Your task to perform on an android device: Go to sound settings Image 0: 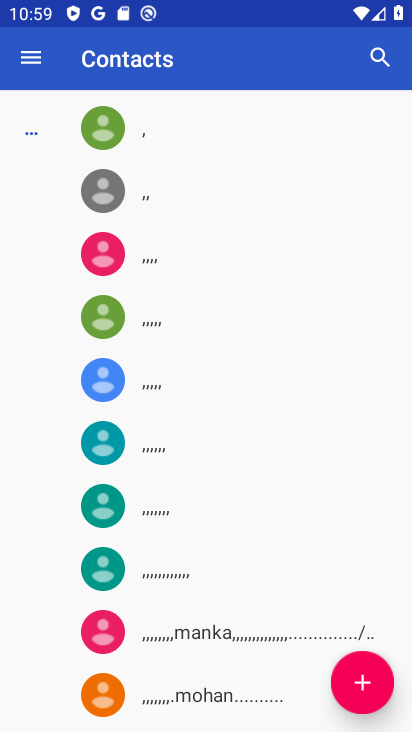
Step 0: press home button
Your task to perform on an android device: Go to sound settings Image 1: 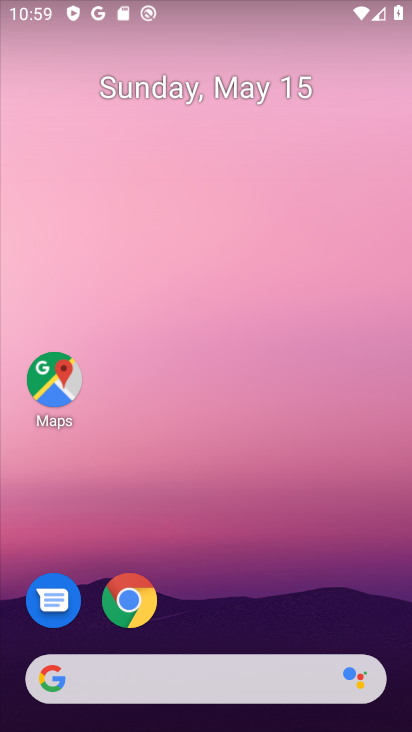
Step 1: drag from (183, 663) to (205, 193)
Your task to perform on an android device: Go to sound settings Image 2: 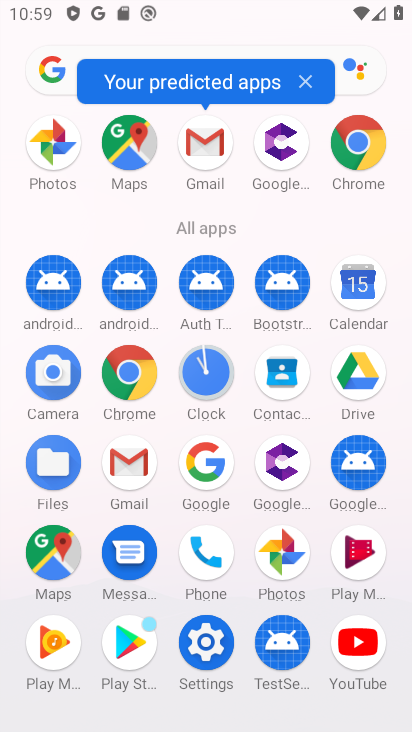
Step 2: click (199, 632)
Your task to perform on an android device: Go to sound settings Image 3: 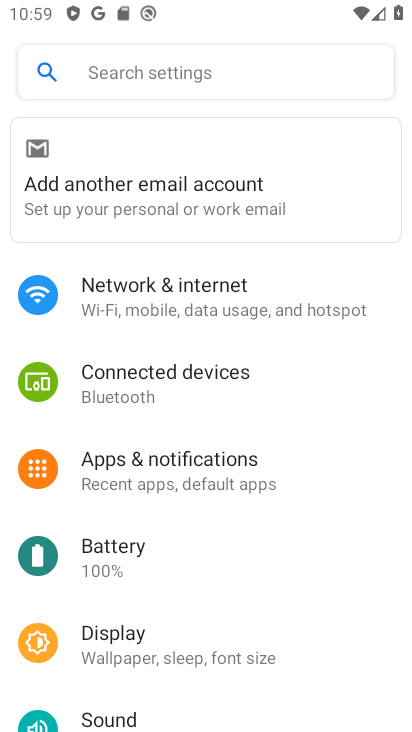
Step 3: drag from (182, 650) to (179, 121)
Your task to perform on an android device: Go to sound settings Image 4: 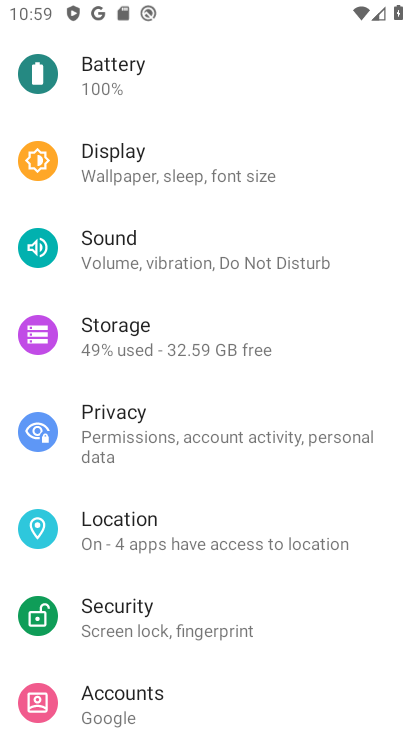
Step 4: click (119, 271)
Your task to perform on an android device: Go to sound settings Image 5: 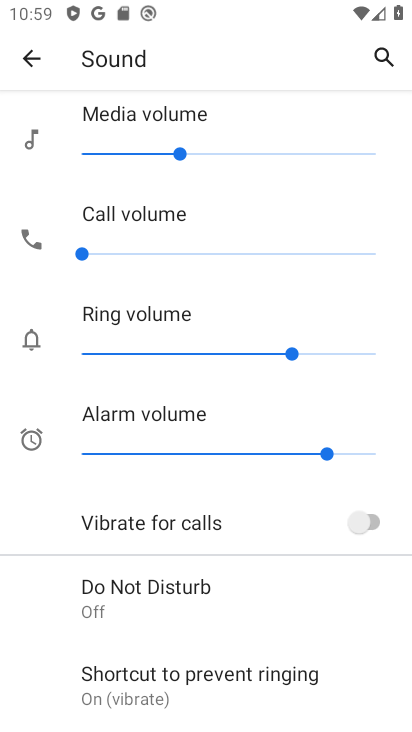
Step 5: task complete